Your task to perform on an android device: toggle javascript in the chrome app Image 0: 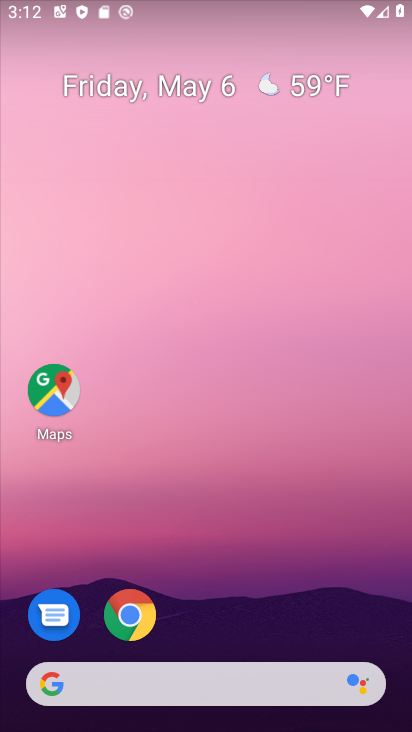
Step 0: drag from (276, 603) to (268, 238)
Your task to perform on an android device: toggle javascript in the chrome app Image 1: 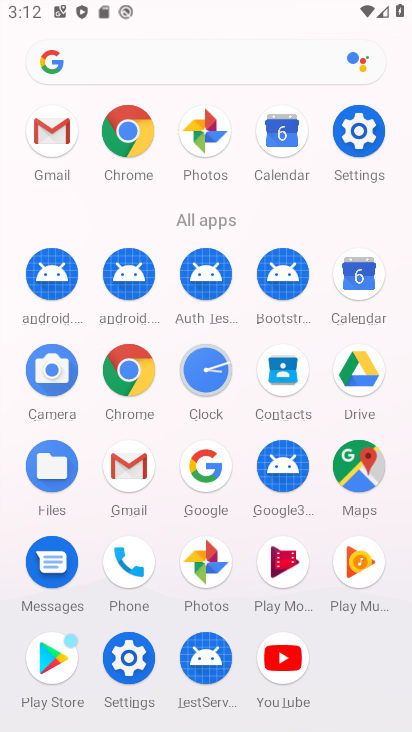
Step 1: click (131, 372)
Your task to perform on an android device: toggle javascript in the chrome app Image 2: 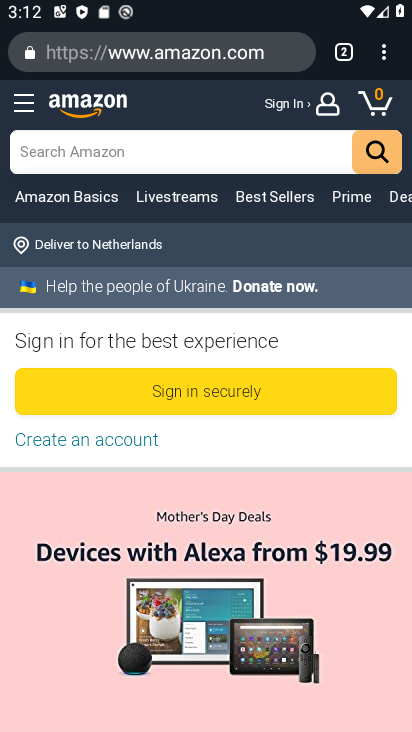
Step 2: click (375, 58)
Your task to perform on an android device: toggle javascript in the chrome app Image 3: 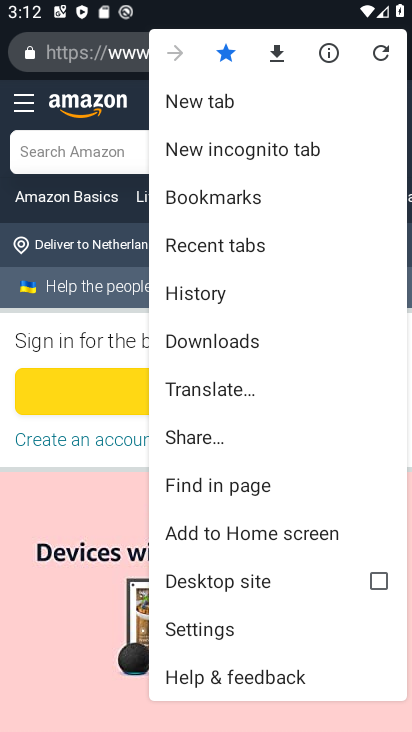
Step 3: click (235, 633)
Your task to perform on an android device: toggle javascript in the chrome app Image 4: 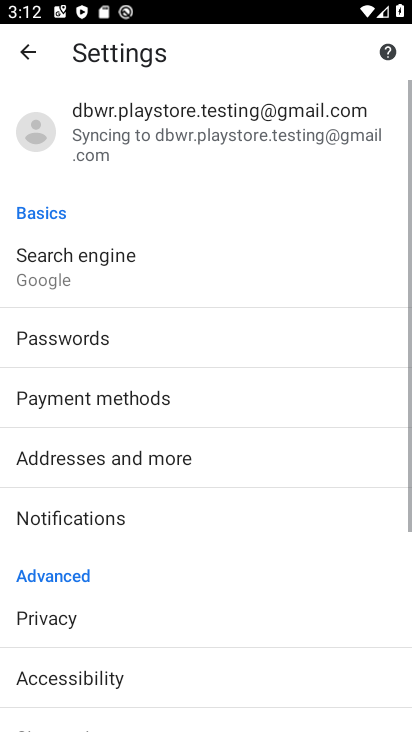
Step 4: drag from (197, 631) to (265, 224)
Your task to perform on an android device: toggle javascript in the chrome app Image 5: 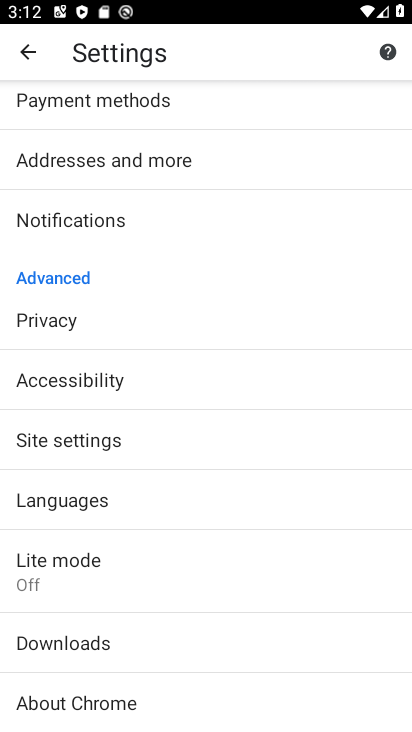
Step 5: click (96, 447)
Your task to perform on an android device: toggle javascript in the chrome app Image 6: 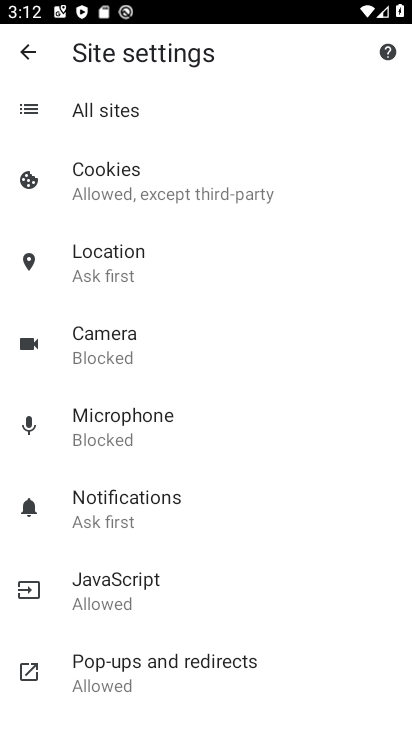
Step 6: click (167, 592)
Your task to perform on an android device: toggle javascript in the chrome app Image 7: 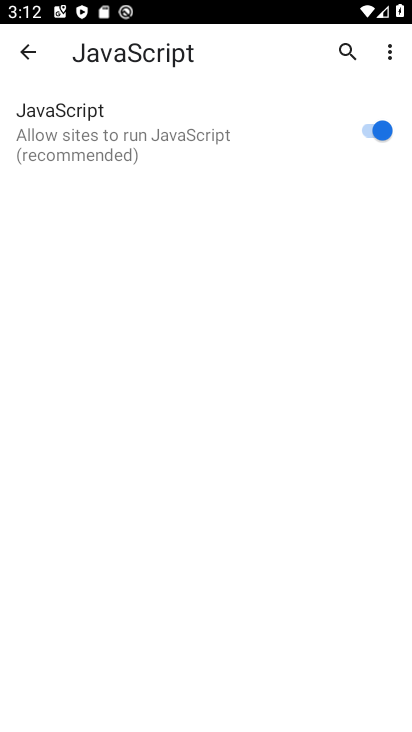
Step 7: click (360, 135)
Your task to perform on an android device: toggle javascript in the chrome app Image 8: 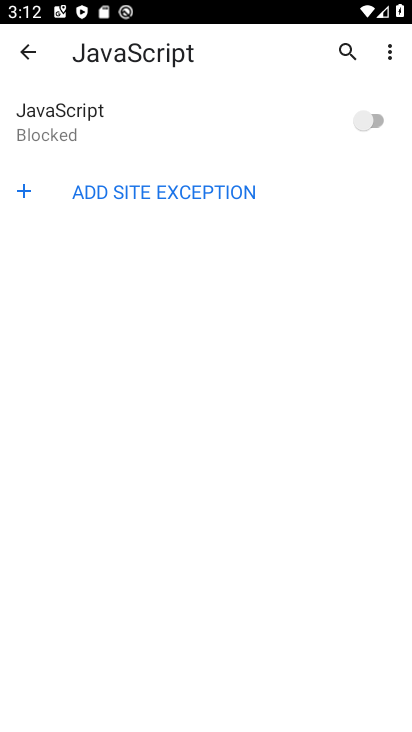
Step 8: task complete